Your task to perform on an android device: What's the weather today? Image 0: 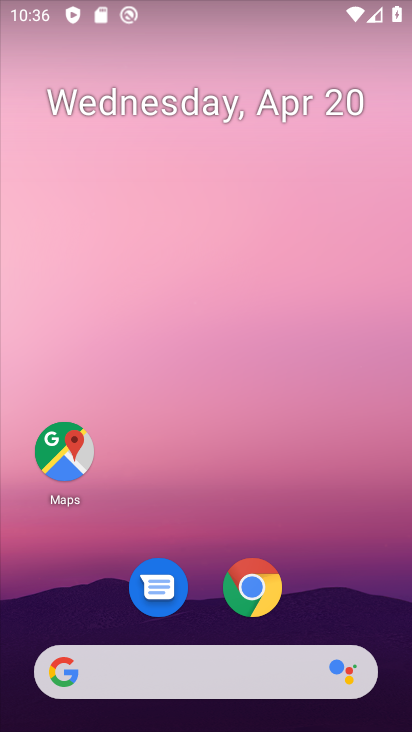
Step 0: drag from (322, 540) to (210, 43)
Your task to perform on an android device: What's the weather today? Image 1: 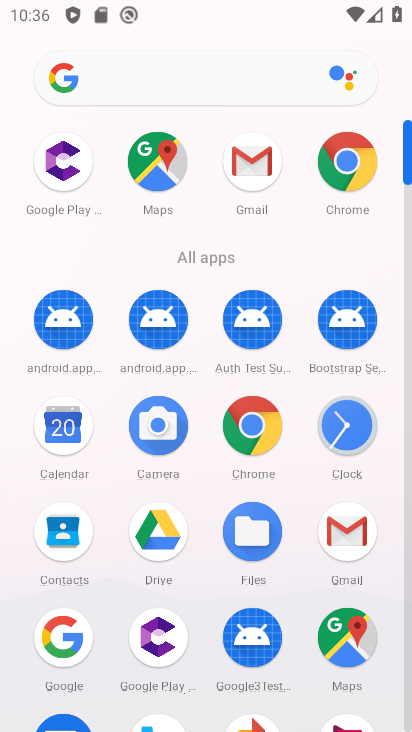
Step 1: click (335, 80)
Your task to perform on an android device: What's the weather today? Image 2: 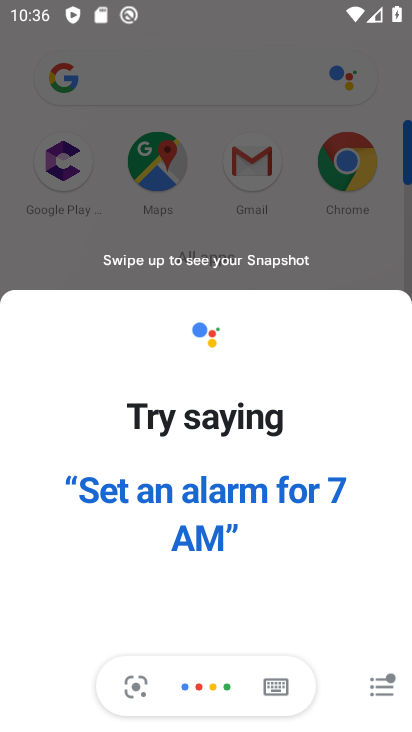
Step 2: click (206, 203)
Your task to perform on an android device: What's the weather today? Image 3: 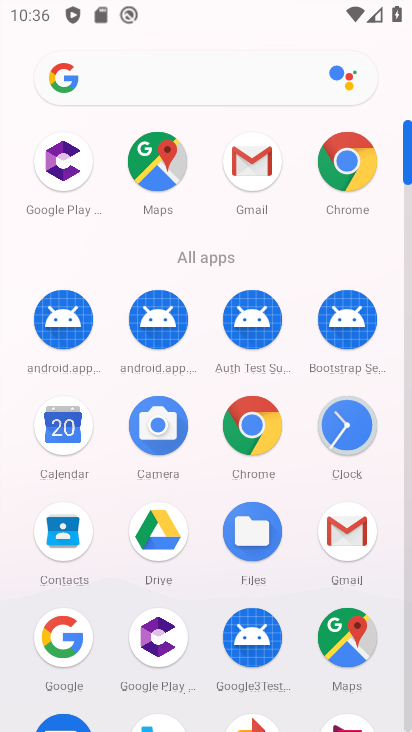
Step 3: click (216, 74)
Your task to perform on an android device: What's the weather today? Image 4: 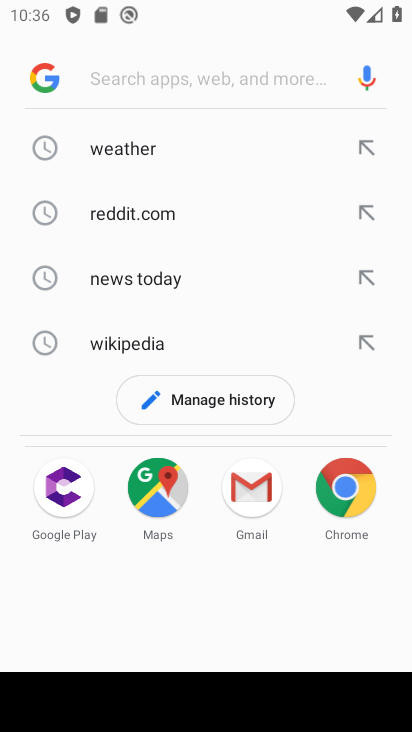
Step 4: click (162, 154)
Your task to perform on an android device: What's the weather today? Image 5: 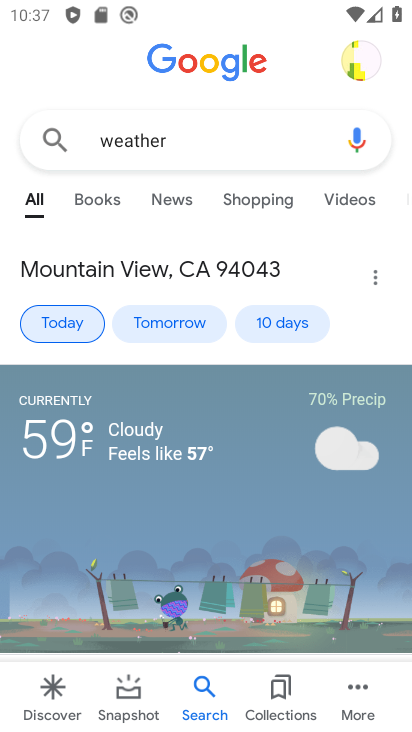
Step 5: task complete